Your task to perform on an android device: visit the assistant section in the google photos Image 0: 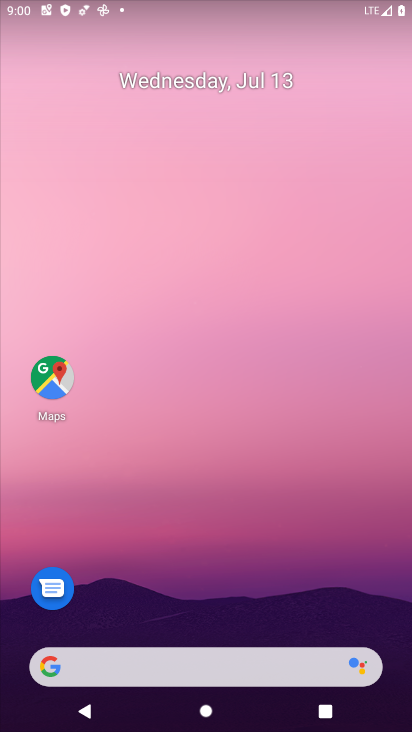
Step 0: drag from (168, 703) to (209, 7)
Your task to perform on an android device: visit the assistant section in the google photos Image 1: 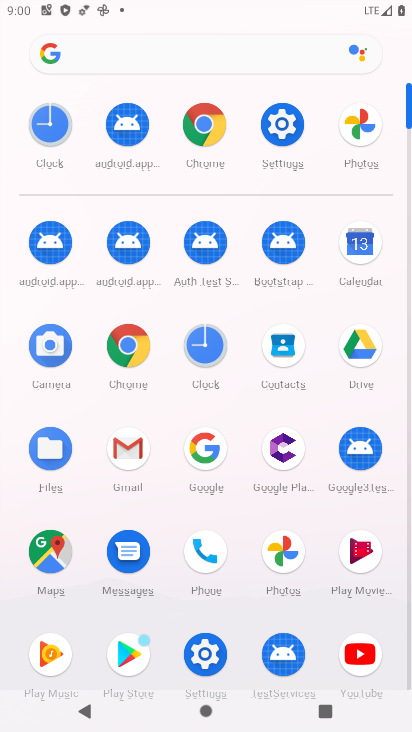
Step 1: click (355, 134)
Your task to perform on an android device: visit the assistant section in the google photos Image 2: 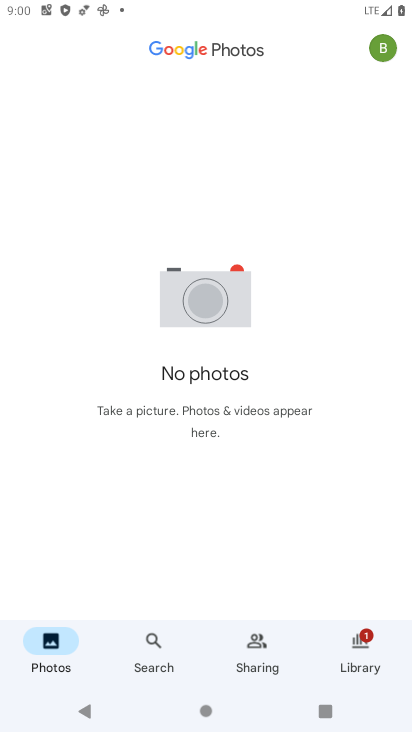
Step 2: click (347, 652)
Your task to perform on an android device: visit the assistant section in the google photos Image 3: 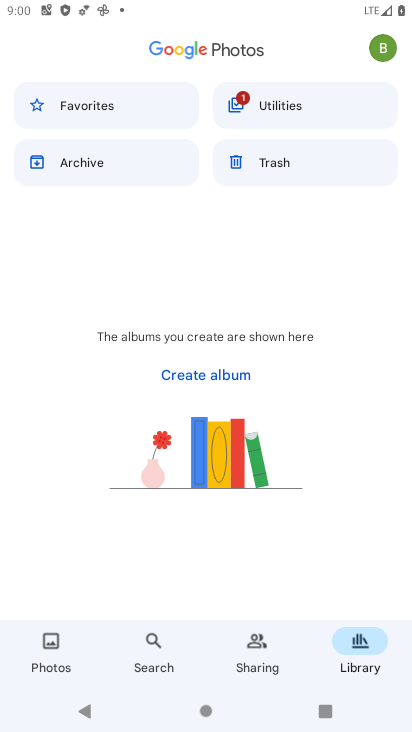
Step 3: task complete